Your task to perform on an android device: turn on the 12-hour format for clock Image 0: 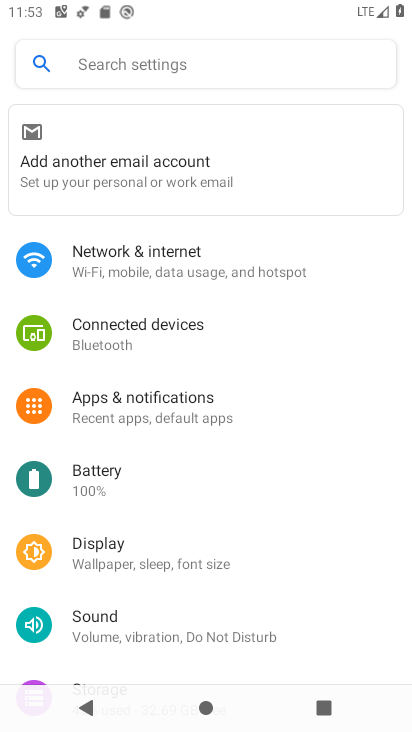
Step 0: press home button
Your task to perform on an android device: turn on the 12-hour format for clock Image 1: 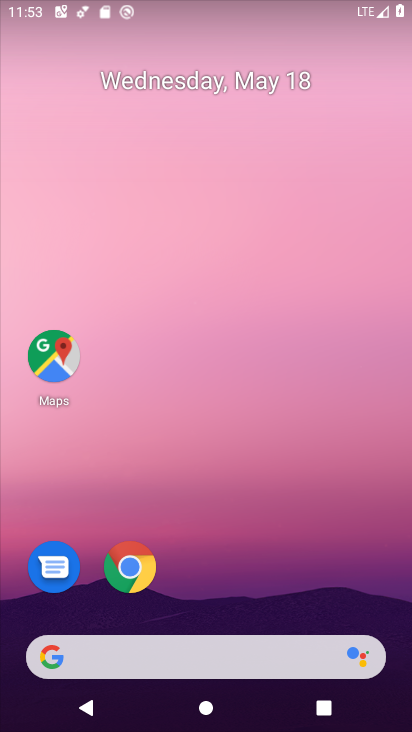
Step 1: drag from (311, 532) to (326, 0)
Your task to perform on an android device: turn on the 12-hour format for clock Image 2: 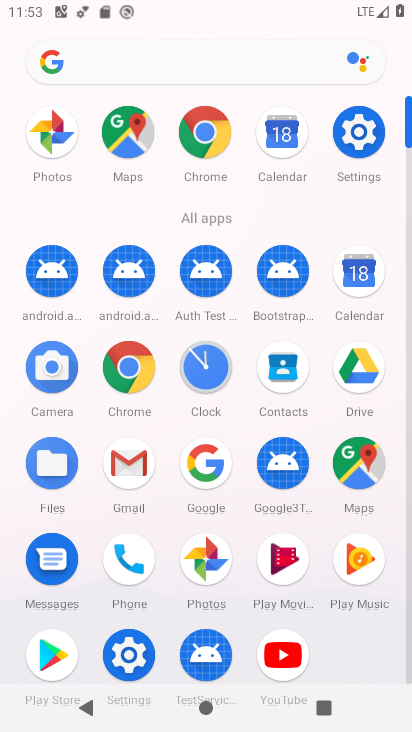
Step 2: click (207, 378)
Your task to perform on an android device: turn on the 12-hour format for clock Image 3: 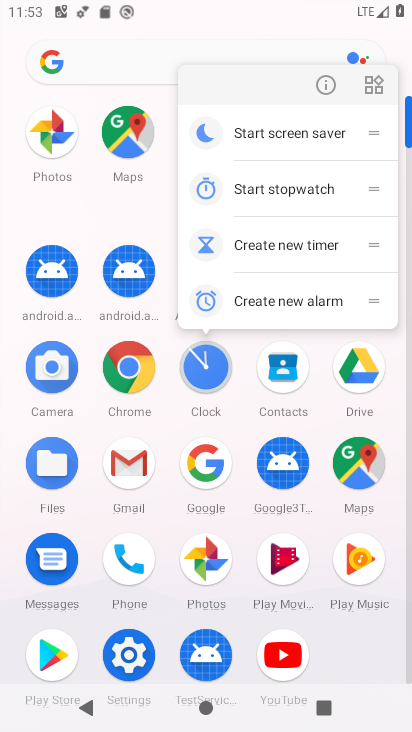
Step 3: click (207, 378)
Your task to perform on an android device: turn on the 12-hour format for clock Image 4: 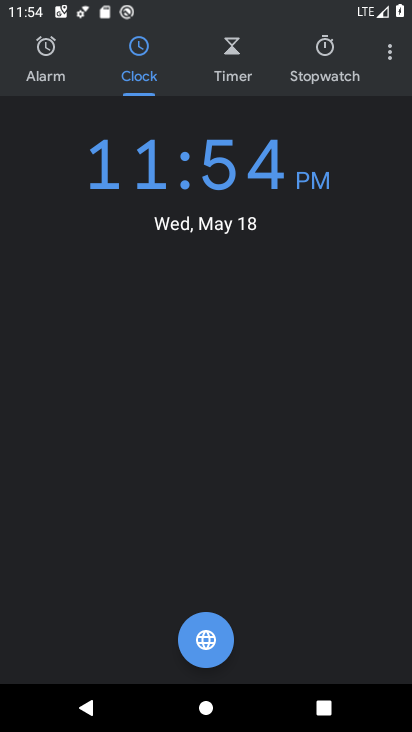
Step 4: click (385, 57)
Your task to perform on an android device: turn on the 12-hour format for clock Image 5: 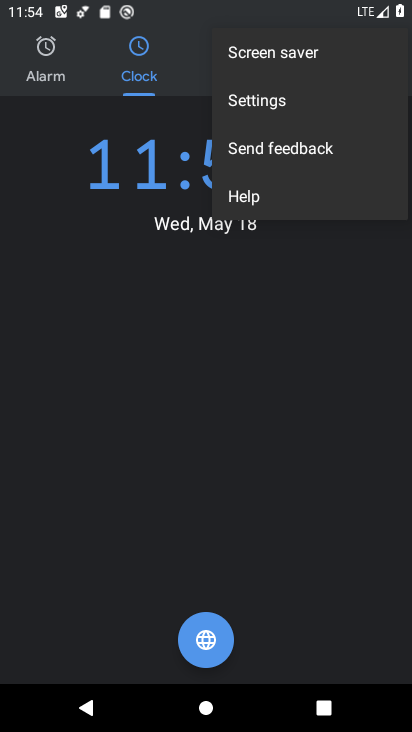
Step 5: click (249, 93)
Your task to perform on an android device: turn on the 12-hour format for clock Image 6: 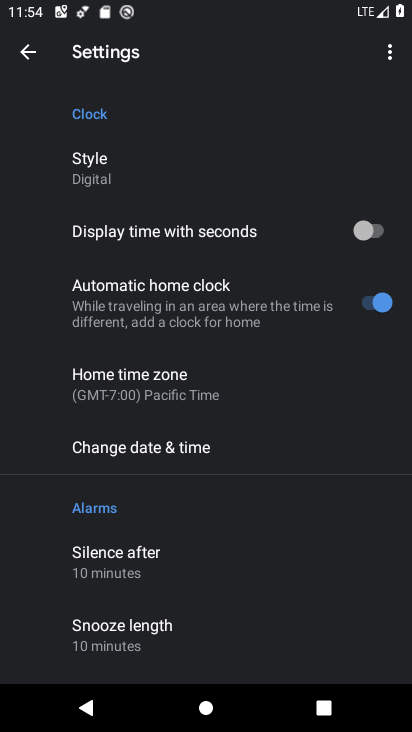
Step 6: drag from (182, 269) to (229, 554)
Your task to perform on an android device: turn on the 12-hour format for clock Image 7: 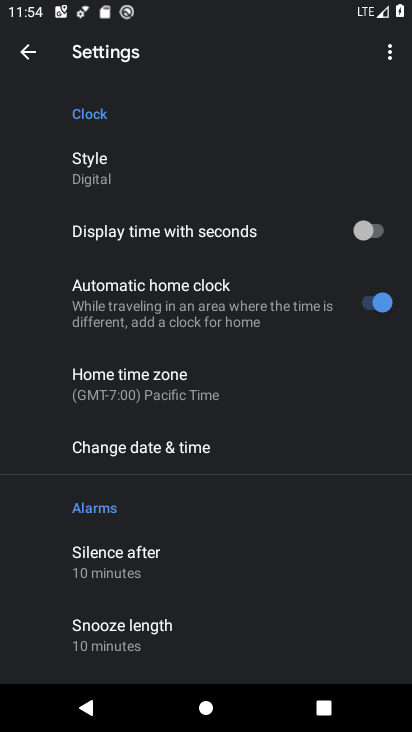
Step 7: click (142, 452)
Your task to perform on an android device: turn on the 12-hour format for clock Image 8: 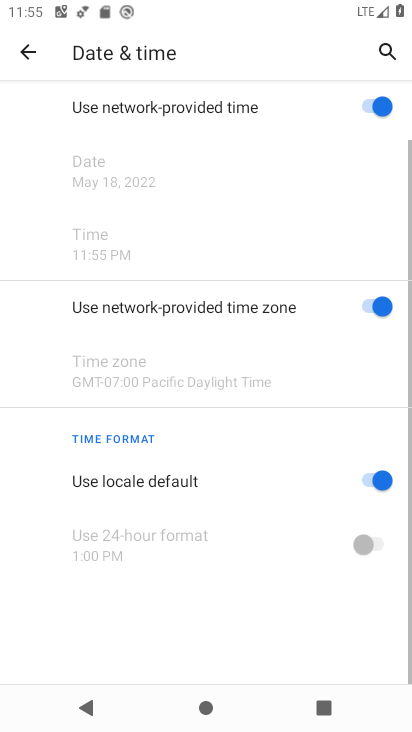
Step 8: drag from (151, 616) to (156, 186)
Your task to perform on an android device: turn on the 12-hour format for clock Image 9: 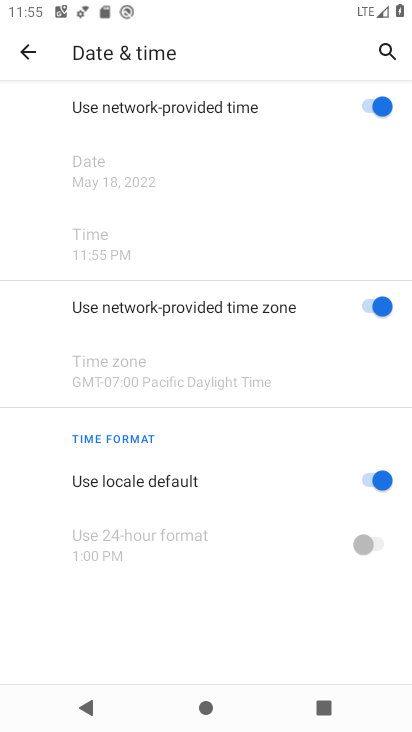
Step 9: click (374, 483)
Your task to perform on an android device: turn on the 12-hour format for clock Image 10: 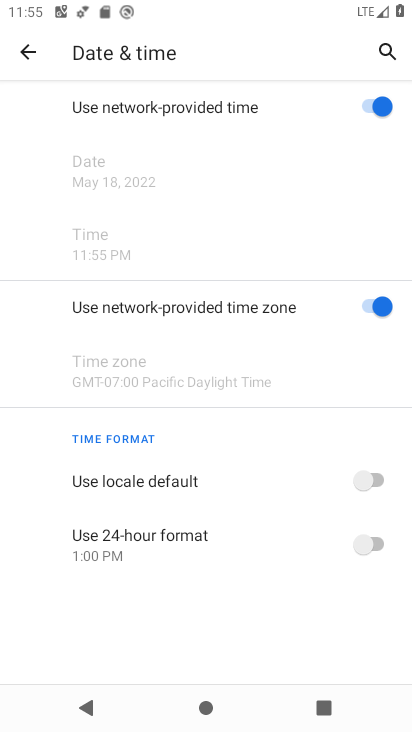
Step 10: task complete